Your task to perform on an android device: Open accessibility settings Image 0: 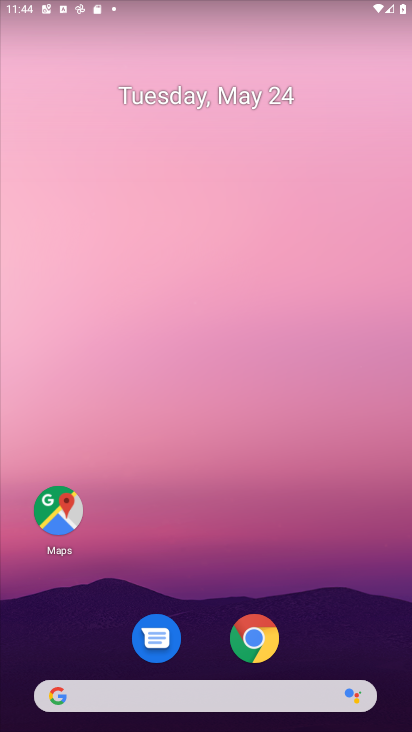
Step 0: drag from (288, 470) to (407, 19)
Your task to perform on an android device: Open accessibility settings Image 1: 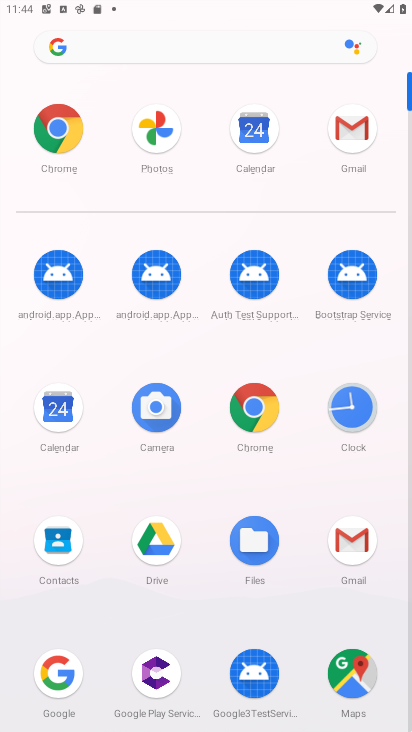
Step 1: drag from (222, 527) to (293, 109)
Your task to perform on an android device: Open accessibility settings Image 2: 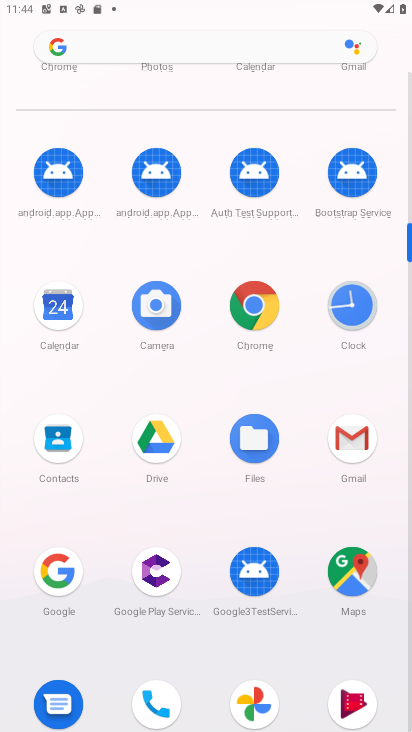
Step 2: drag from (224, 684) to (222, 108)
Your task to perform on an android device: Open accessibility settings Image 3: 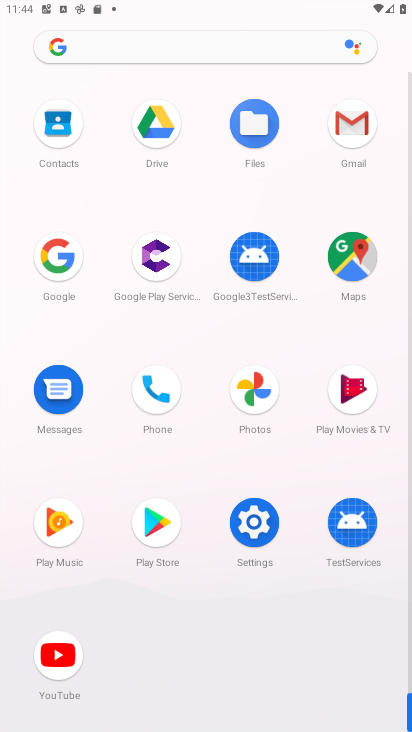
Step 3: click (269, 538)
Your task to perform on an android device: Open accessibility settings Image 4: 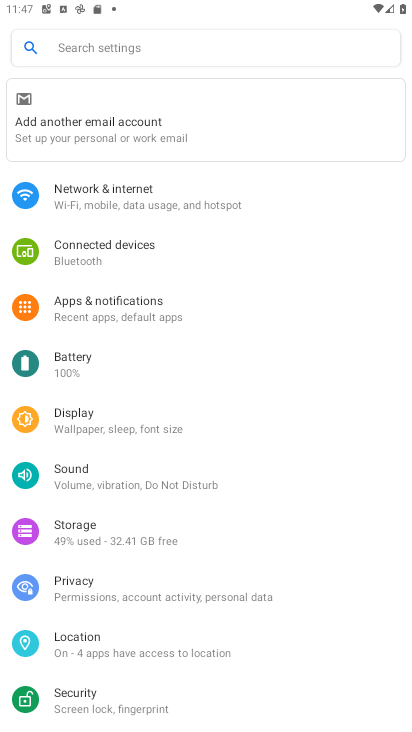
Step 4: drag from (126, 586) to (187, 132)
Your task to perform on an android device: Open accessibility settings Image 5: 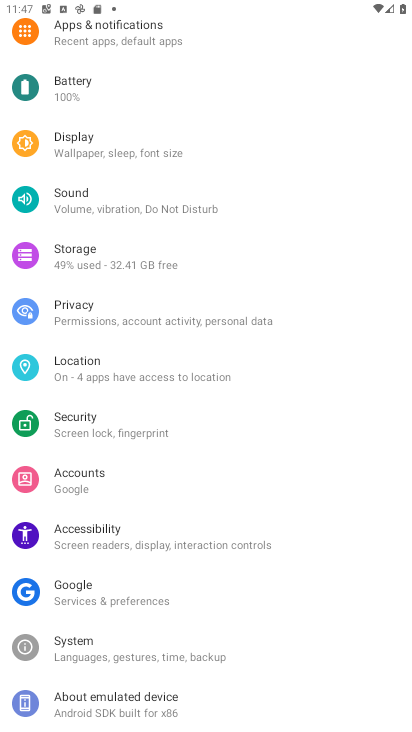
Step 5: click (133, 538)
Your task to perform on an android device: Open accessibility settings Image 6: 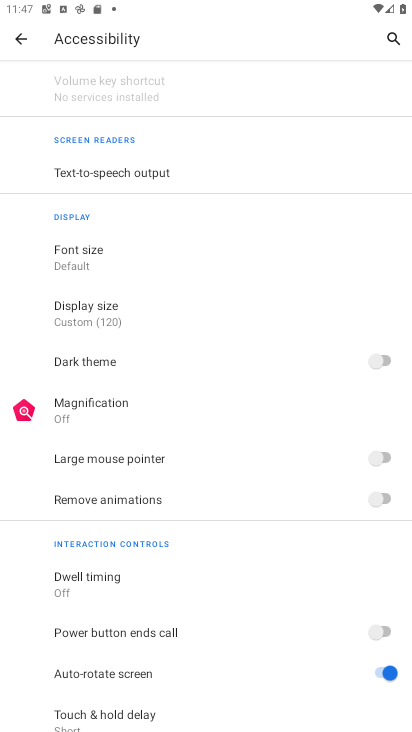
Step 6: task complete